Your task to perform on an android device: see tabs open on other devices in the chrome app Image 0: 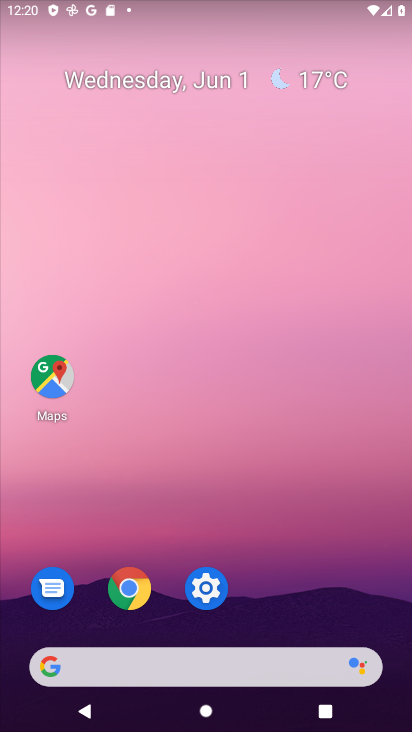
Step 0: click (142, 588)
Your task to perform on an android device: see tabs open on other devices in the chrome app Image 1: 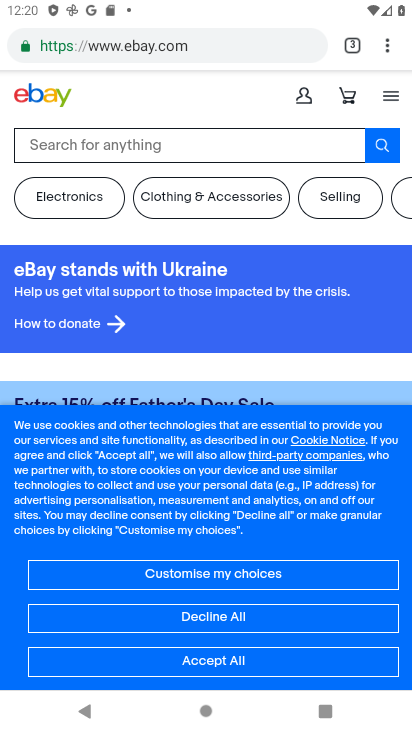
Step 1: click (349, 49)
Your task to perform on an android device: see tabs open on other devices in the chrome app Image 2: 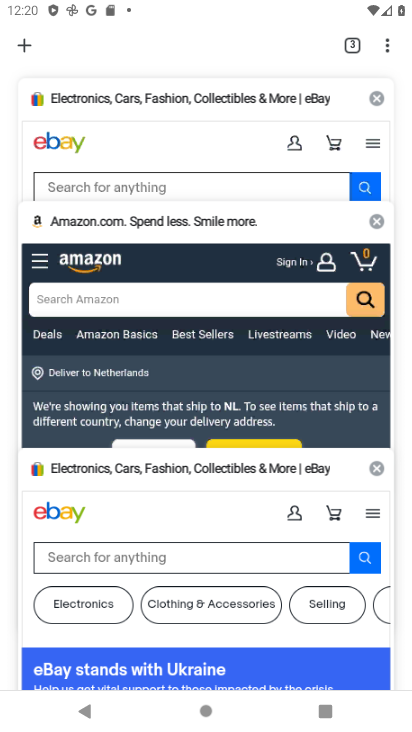
Step 2: click (29, 45)
Your task to perform on an android device: see tabs open on other devices in the chrome app Image 3: 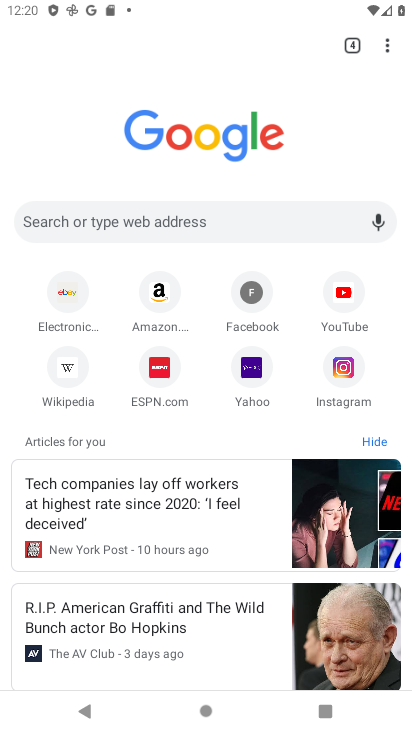
Step 3: task complete